Your task to perform on an android device: Go to Google maps Image 0: 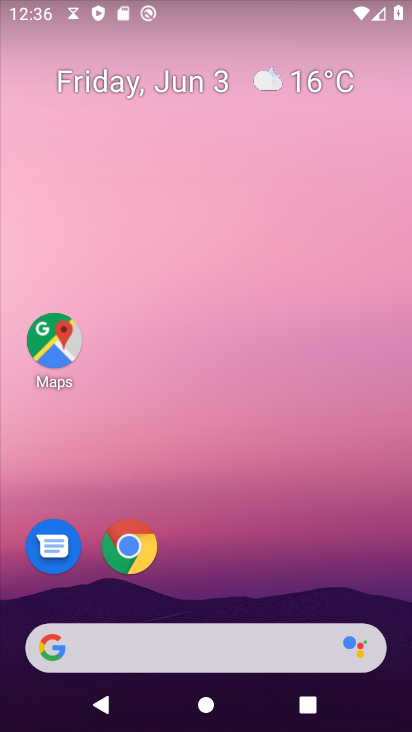
Step 0: click (58, 340)
Your task to perform on an android device: Go to Google maps Image 1: 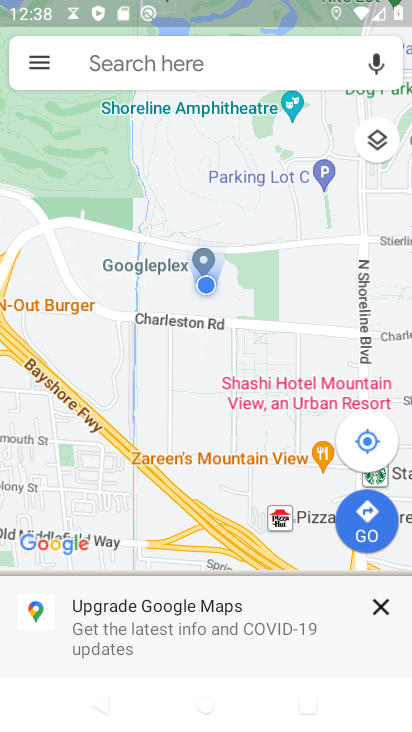
Step 1: task complete